Your task to perform on an android device: Turn off the flashlight Image 0: 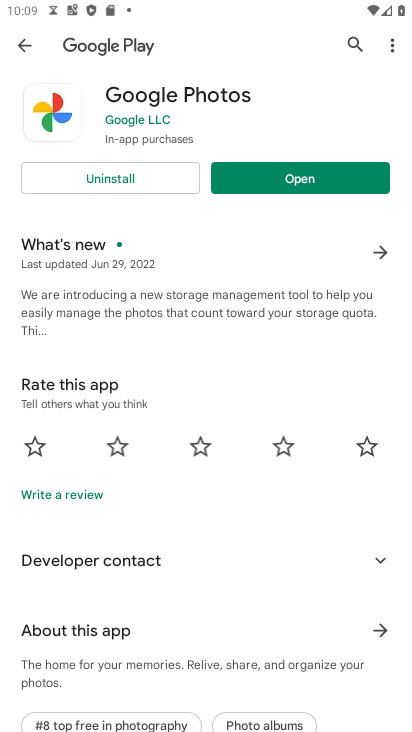
Step 0: press home button
Your task to perform on an android device: Turn off the flashlight Image 1: 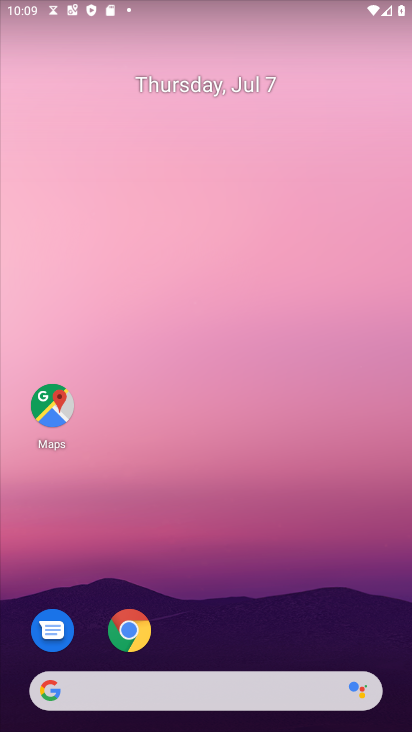
Step 1: drag from (271, 5) to (291, 372)
Your task to perform on an android device: Turn off the flashlight Image 2: 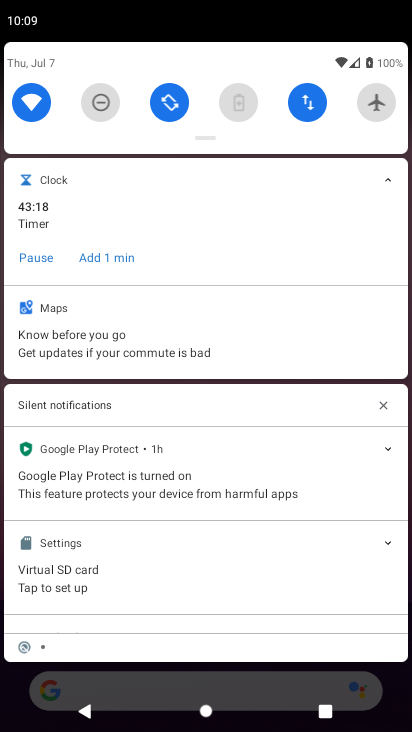
Step 2: drag from (240, 108) to (317, 459)
Your task to perform on an android device: Turn off the flashlight Image 3: 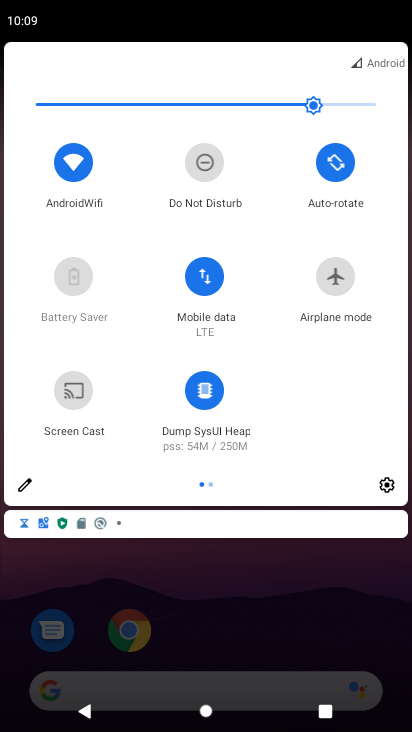
Step 3: drag from (364, 330) to (1, 335)
Your task to perform on an android device: Turn off the flashlight Image 4: 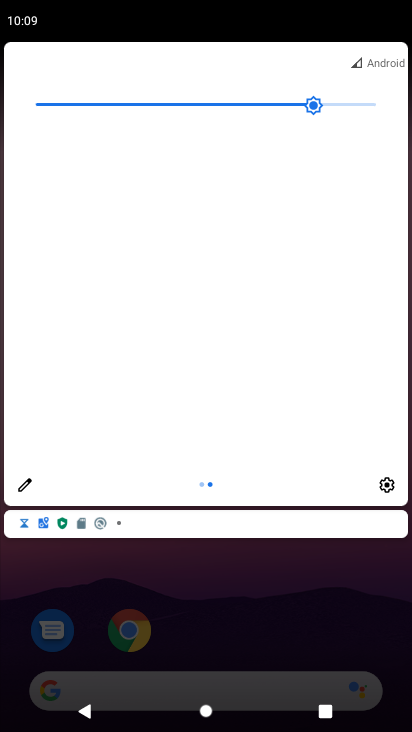
Step 4: click (30, 482)
Your task to perform on an android device: Turn off the flashlight Image 5: 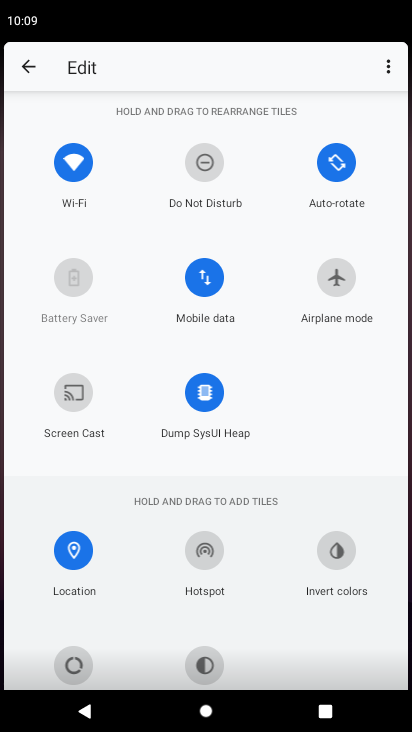
Step 5: task complete